Your task to perform on an android device: turn on translation in the chrome app Image 0: 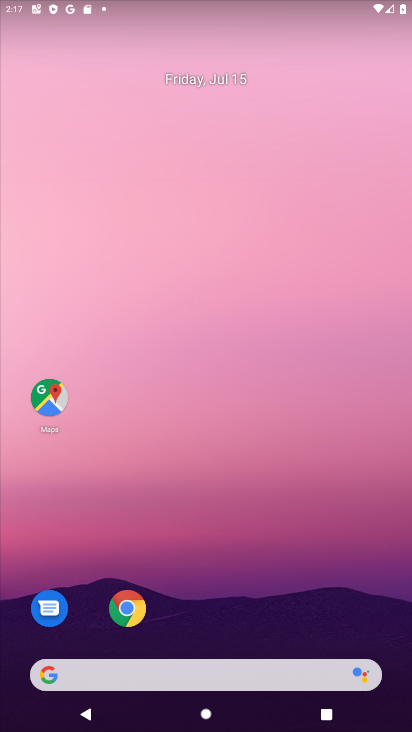
Step 0: drag from (261, 700) to (359, 3)
Your task to perform on an android device: turn on translation in the chrome app Image 1: 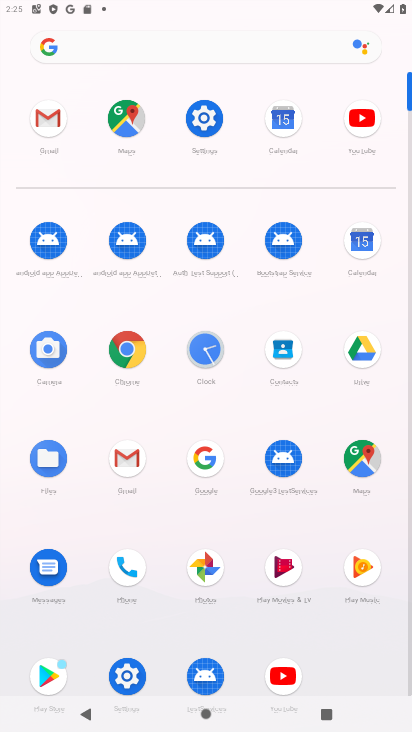
Step 1: click (121, 348)
Your task to perform on an android device: turn on translation in the chrome app Image 2: 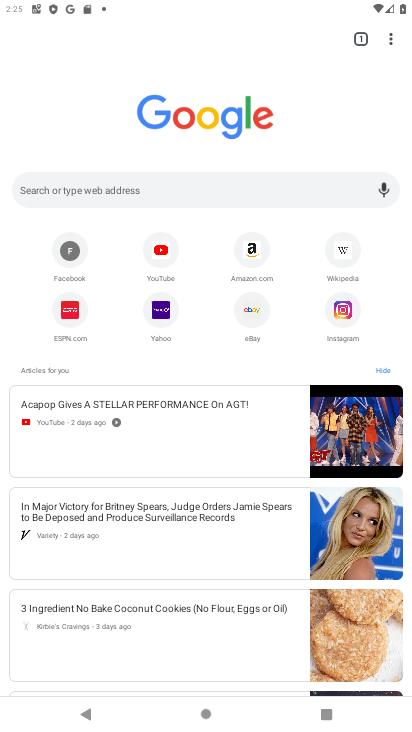
Step 2: click (393, 35)
Your task to perform on an android device: turn on translation in the chrome app Image 3: 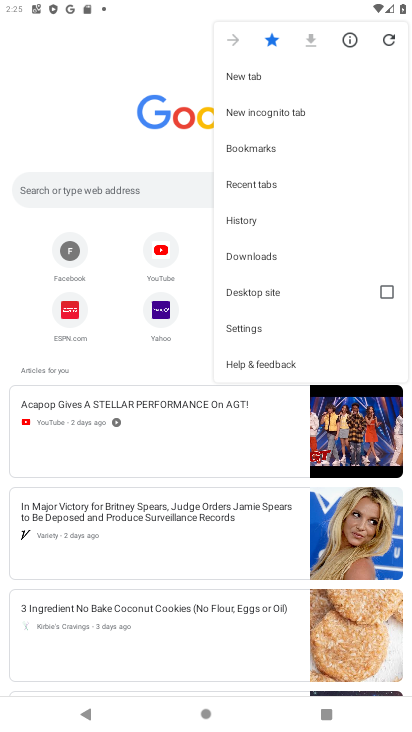
Step 3: click (250, 324)
Your task to perform on an android device: turn on translation in the chrome app Image 4: 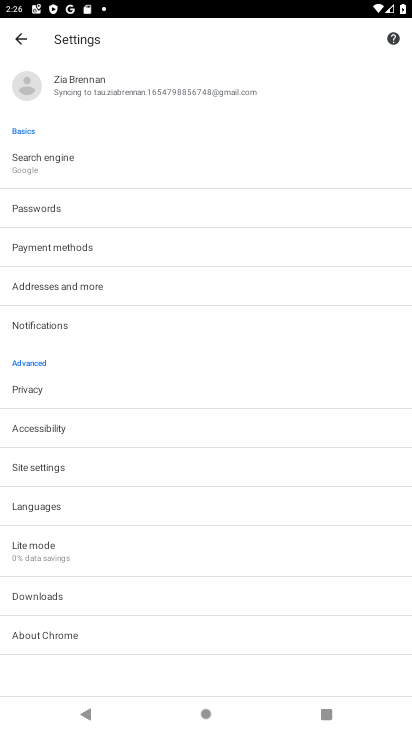
Step 4: click (70, 508)
Your task to perform on an android device: turn on translation in the chrome app Image 5: 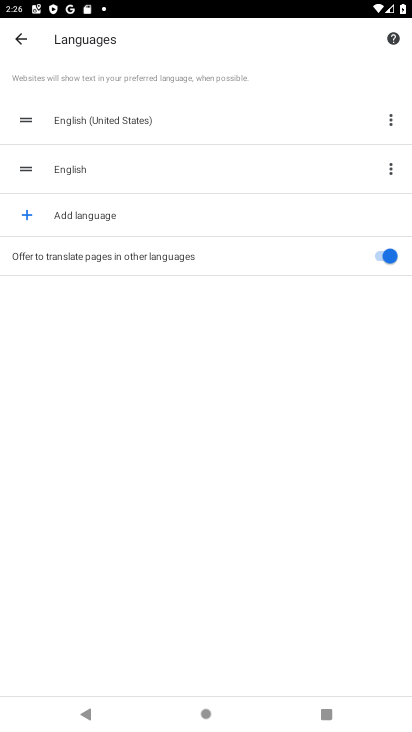
Step 5: task complete